Your task to perform on an android device: change timer sound Image 0: 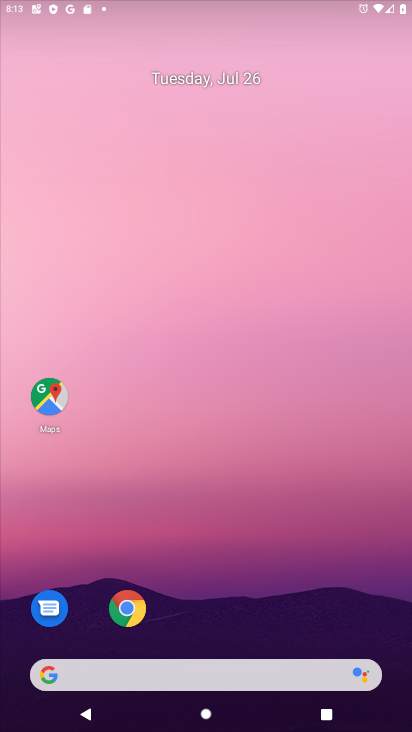
Step 0: drag from (265, 646) to (183, 154)
Your task to perform on an android device: change timer sound Image 1: 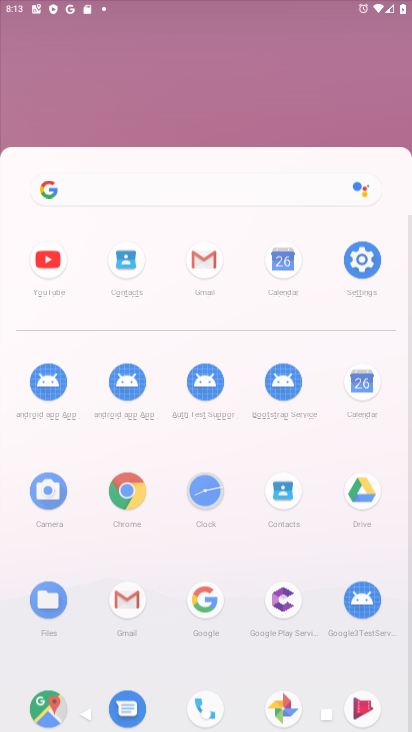
Step 1: drag from (204, 574) to (161, 97)
Your task to perform on an android device: change timer sound Image 2: 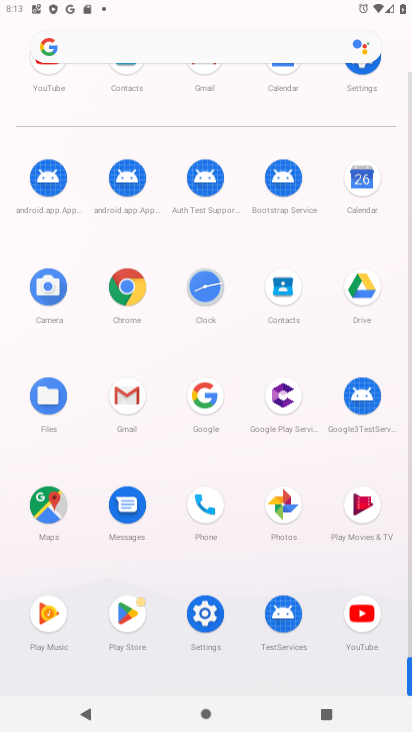
Step 2: drag from (241, 562) to (175, 155)
Your task to perform on an android device: change timer sound Image 3: 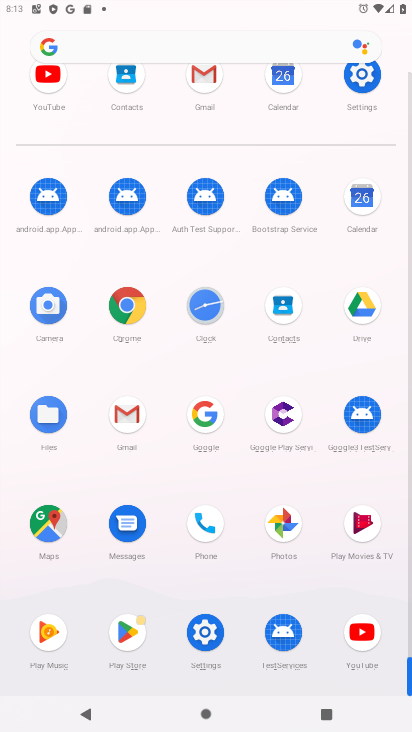
Step 3: click (208, 316)
Your task to perform on an android device: change timer sound Image 4: 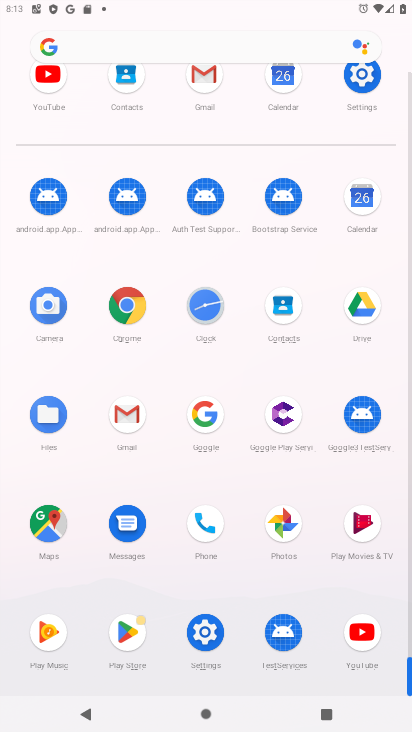
Step 4: click (207, 314)
Your task to perform on an android device: change timer sound Image 5: 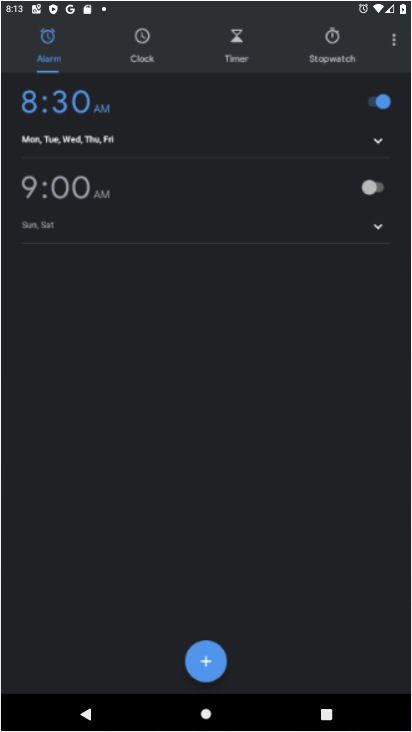
Step 5: click (207, 314)
Your task to perform on an android device: change timer sound Image 6: 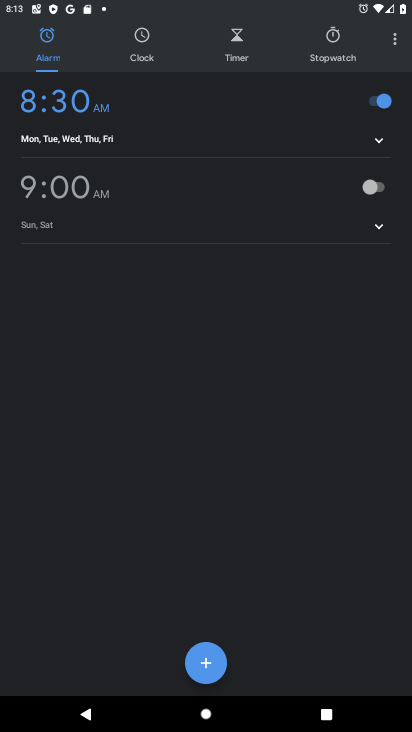
Step 6: click (207, 314)
Your task to perform on an android device: change timer sound Image 7: 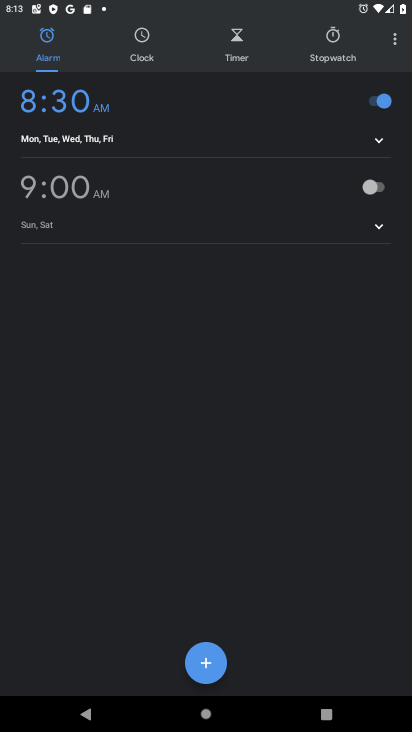
Step 7: click (386, 41)
Your task to perform on an android device: change timer sound Image 8: 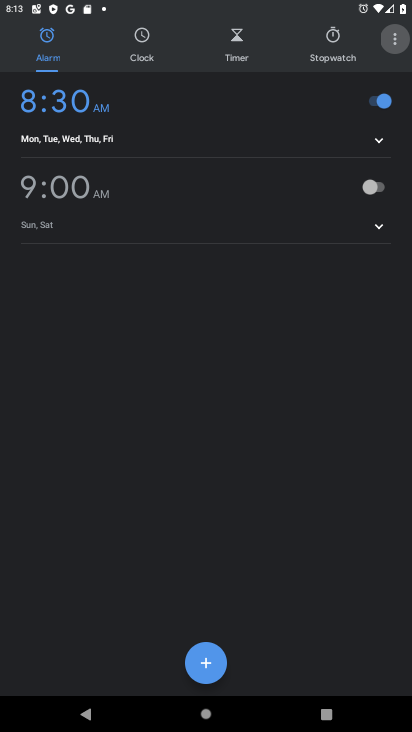
Step 8: click (393, 38)
Your task to perform on an android device: change timer sound Image 9: 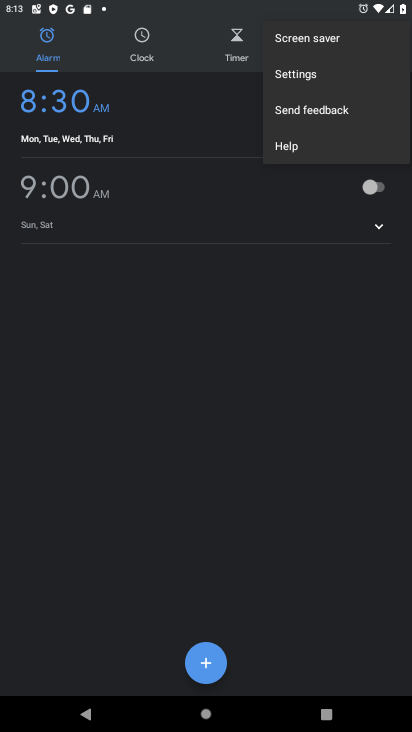
Step 9: click (393, 38)
Your task to perform on an android device: change timer sound Image 10: 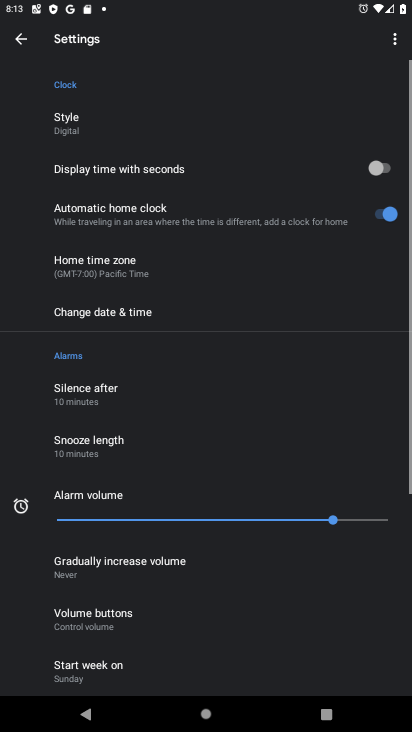
Step 10: click (279, 78)
Your task to perform on an android device: change timer sound Image 11: 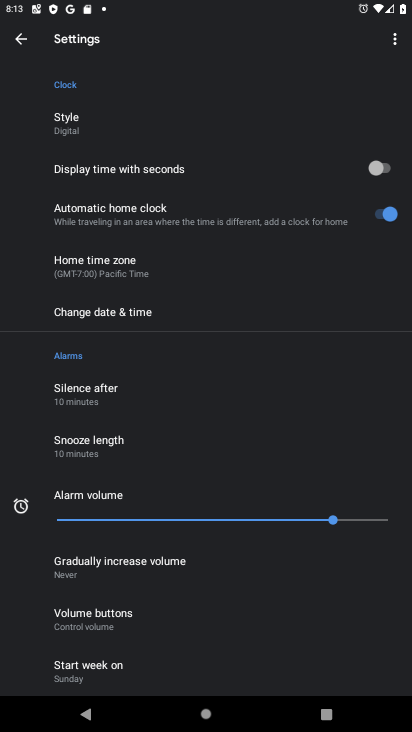
Step 11: drag from (163, 571) to (184, 220)
Your task to perform on an android device: change timer sound Image 12: 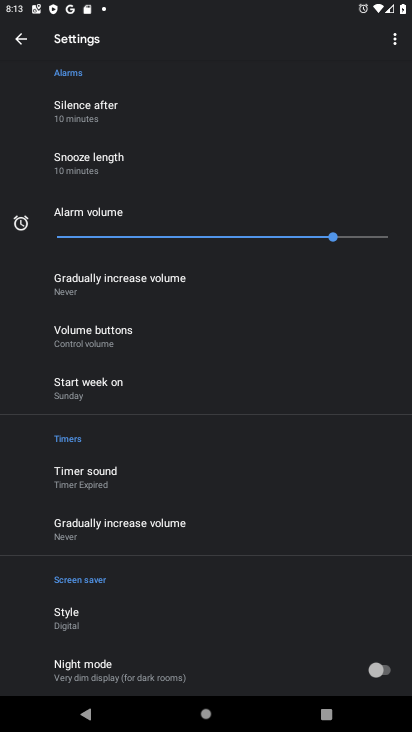
Step 12: click (74, 472)
Your task to perform on an android device: change timer sound Image 13: 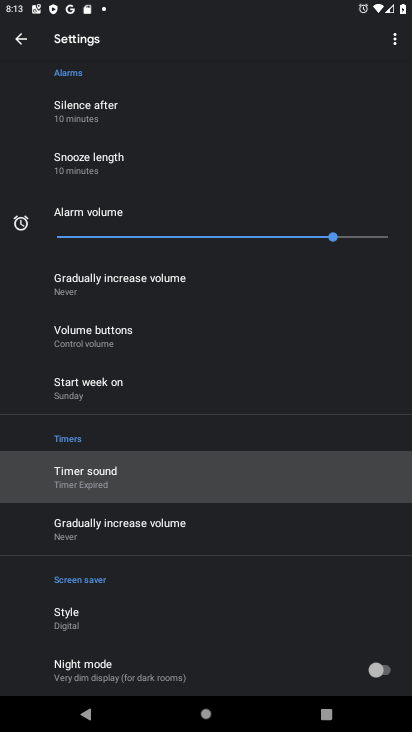
Step 13: click (78, 476)
Your task to perform on an android device: change timer sound Image 14: 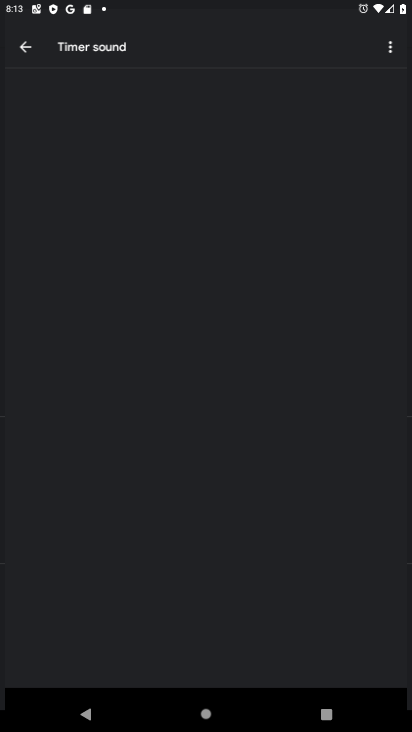
Step 14: click (79, 477)
Your task to perform on an android device: change timer sound Image 15: 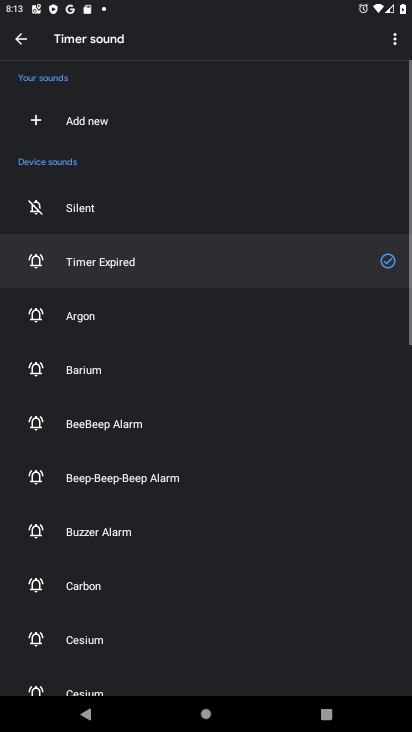
Step 15: click (60, 531)
Your task to perform on an android device: change timer sound Image 16: 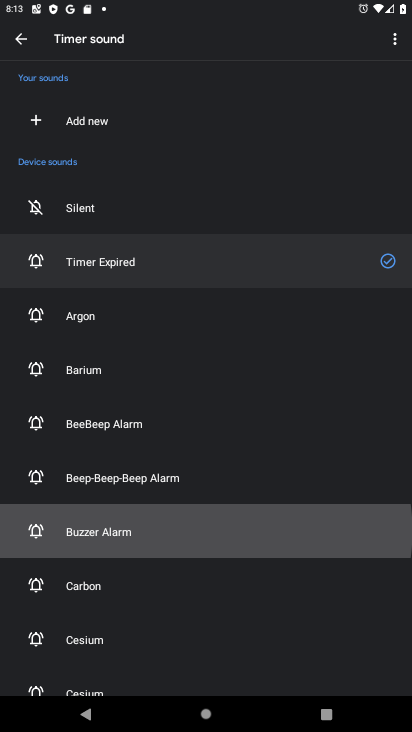
Step 16: click (59, 532)
Your task to perform on an android device: change timer sound Image 17: 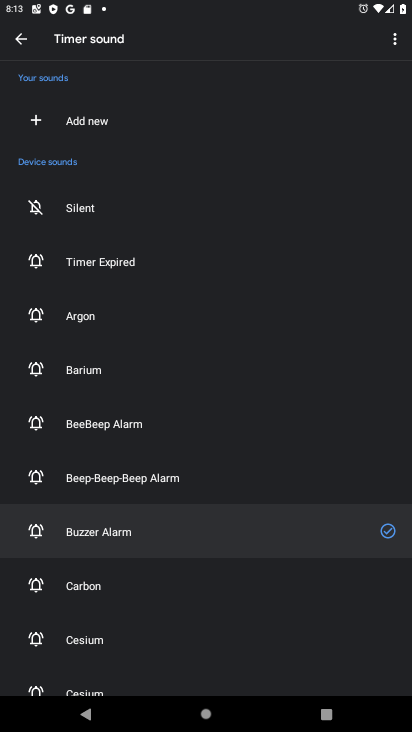
Step 17: task complete